Your task to perform on an android device: turn on data saver in the chrome app Image 0: 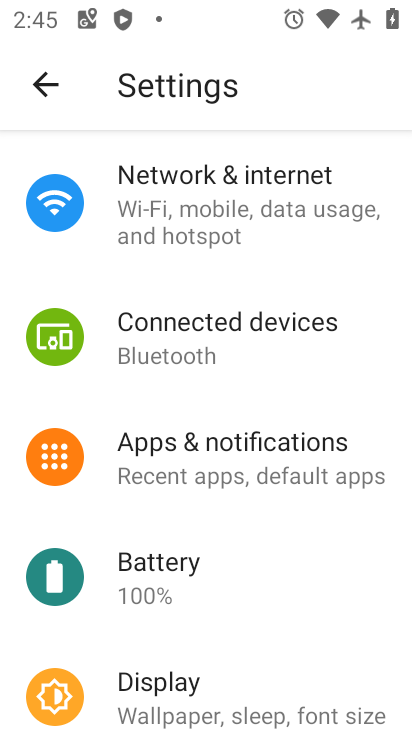
Step 0: press home button
Your task to perform on an android device: turn on data saver in the chrome app Image 1: 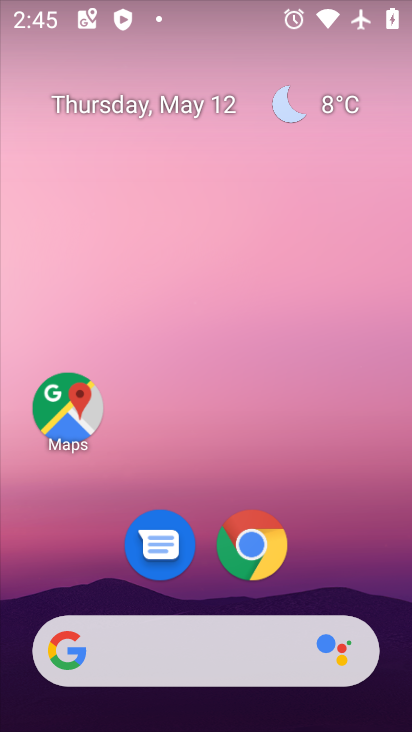
Step 1: click (253, 543)
Your task to perform on an android device: turn on data saver in the chrome app Image 2: 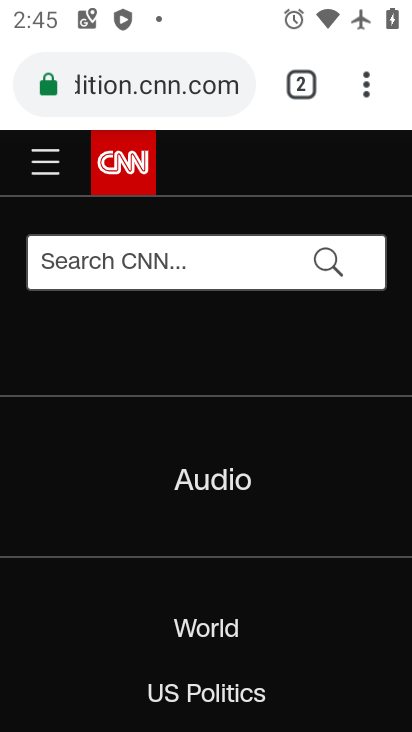
Step 2: click (367, 88)
Your task to perform on an android device: turn on data saver in the chrome app Image 3: 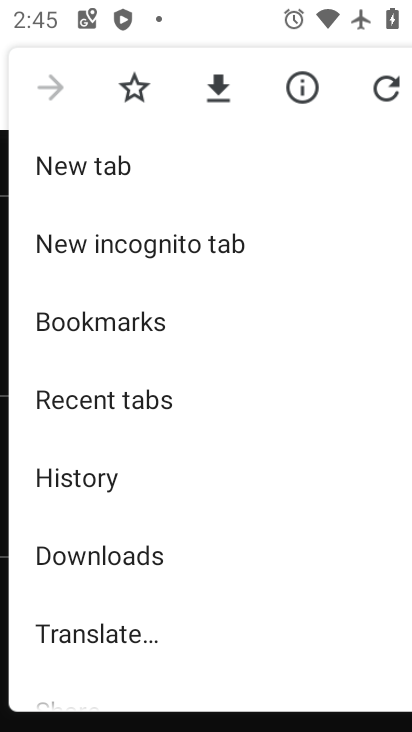
Step 3: drag from (216, 554) to (221, 187)
Your task to perform on an android device: turn on data saver in the chrome app Image 4: 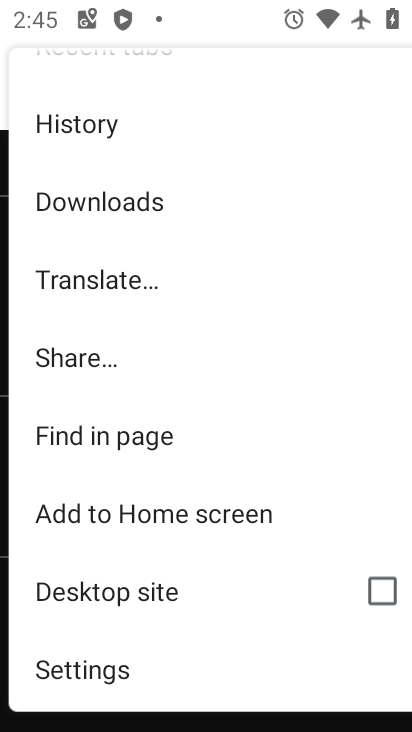
Step 4: drag from (184, 598) to (191, 252)
Your task to perform on an android device: turn on data saver in the chrome app Image 5: 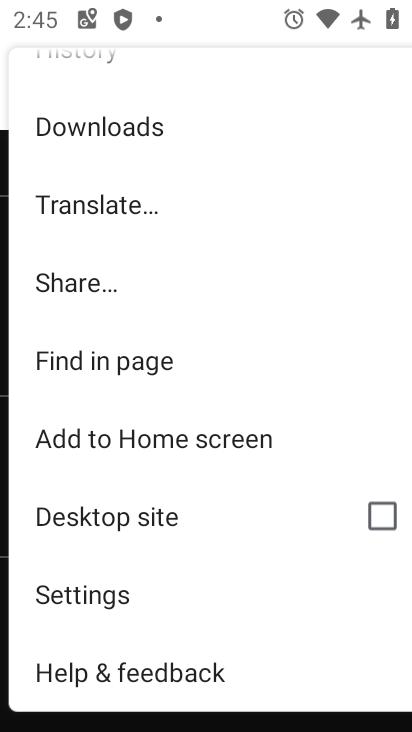
Step 5: click (106, 593)
Your task to perform on an android device: turn on data saver in the chrome app Image 6: 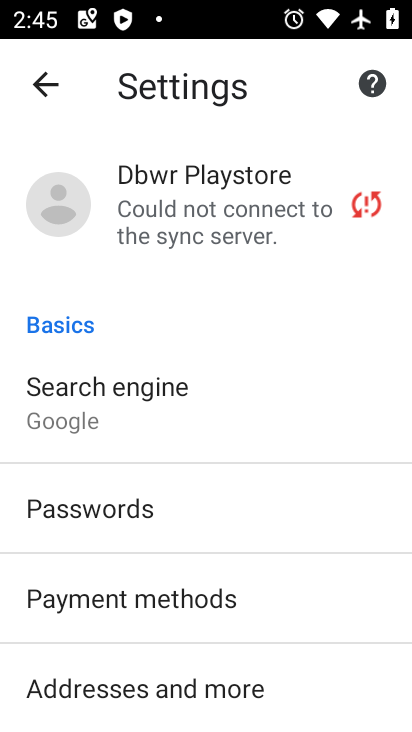
Step 6: drag from (286, 687) to (245, 255)
Your task to perform on an android device: turn on data saver in the chrome app Image 7: 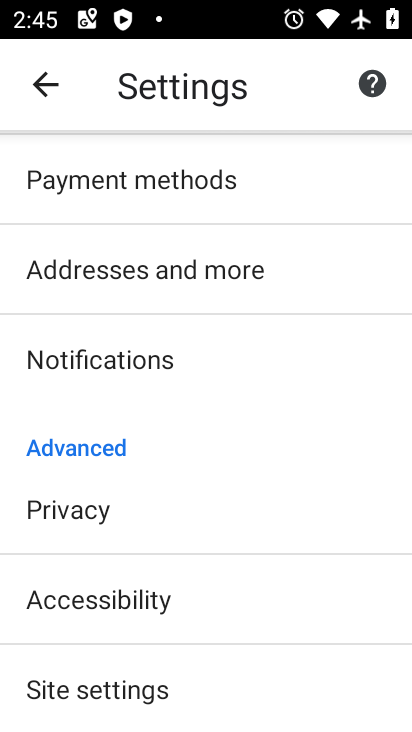
Step 7: drag from (236, 619) to (220, 256)
Your task to perform on an android device: turn on data saver in the chrome app Image 8: 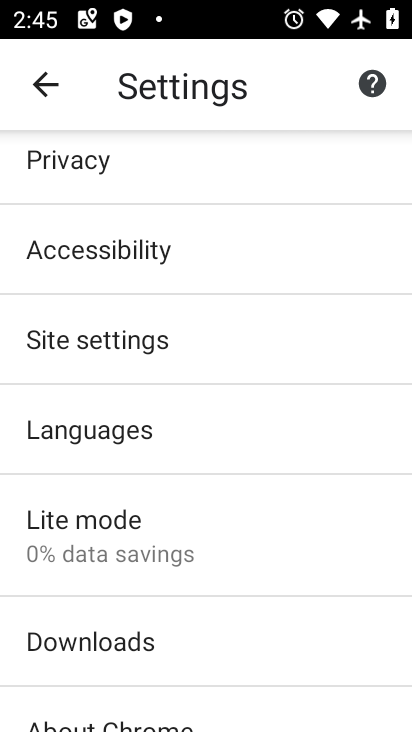
Step 8: click (84, 538)
Your task to perform on an android device: turn on data saver in the chrome app Image 9: 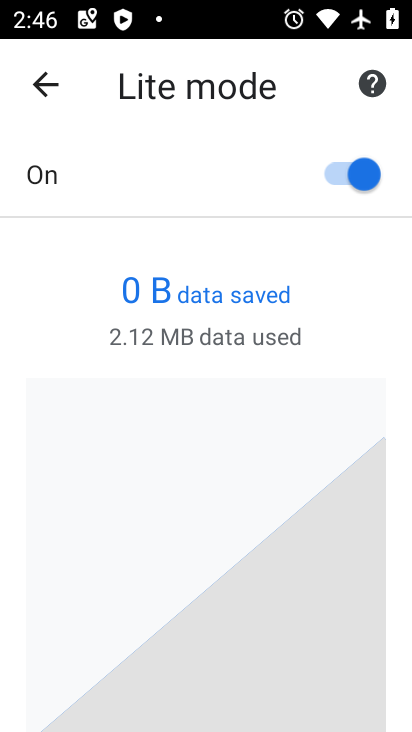
Step 9: task complete